Your task to perform on an android device: Open the calendar app, open the side menu, and click the "Day" option Image 0: 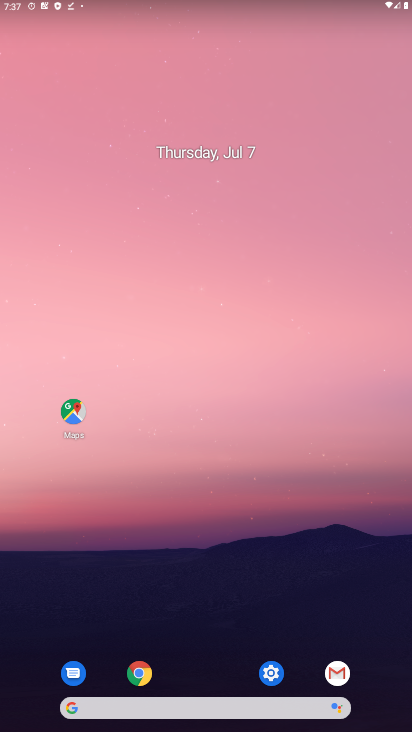
Step 0: drag from (215, 718) to (141, 165)
Your task to perform on an android device: Open the calendar app, open the side menu, and click the "Day" option Image 1: 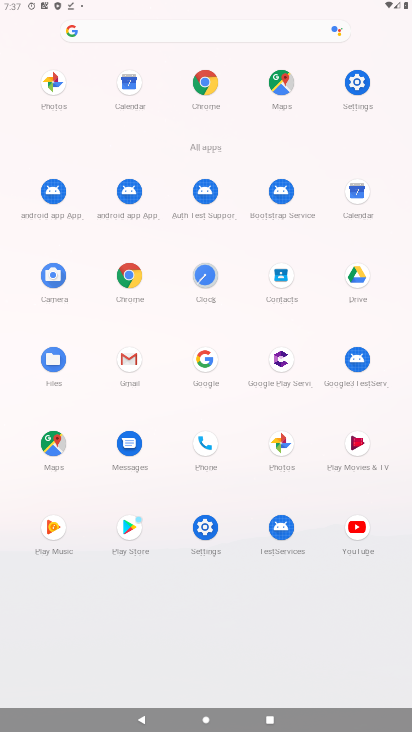
Step 1: click (362, 203)
Your task to perform on an android device: Open the calendar app, open the side menu, and click the "Day" option Image 2: 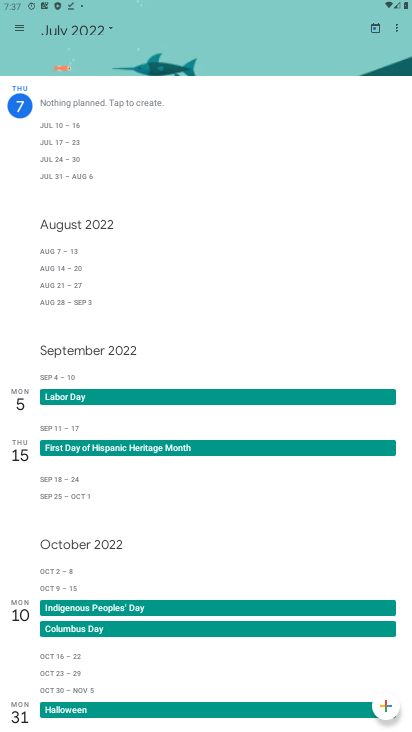
Step 2: click (9, 21)
Your task to perform on an android device: Open the calendar app, open the side menu, and click the "Day" option Image 3: 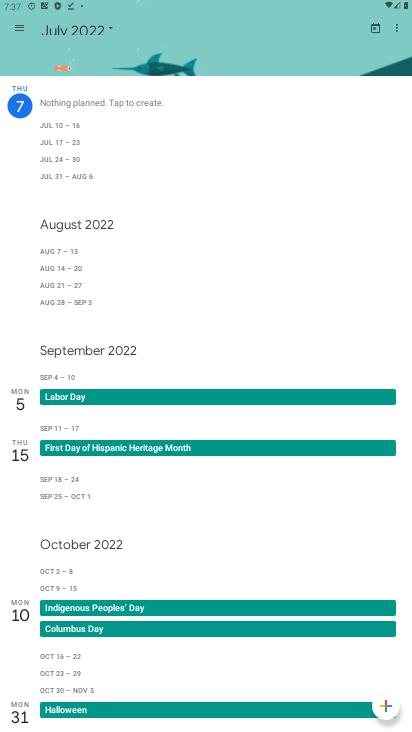
Step 3: click (18, 23)
Your task to perform on an android device: Open the calendar app, open the side menu, and click the "Day" option Image 4: 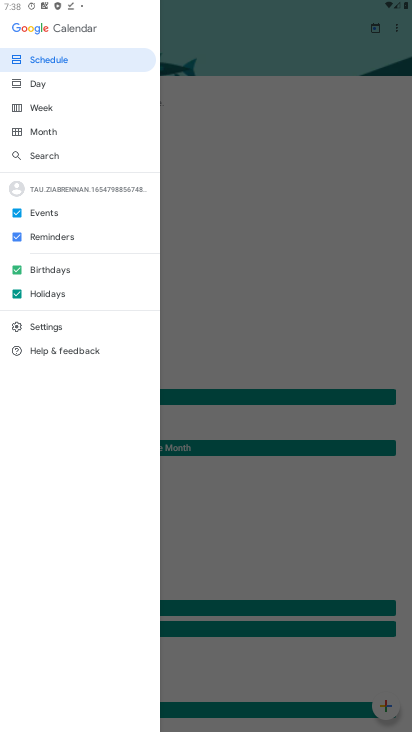
Step 4: click (54, 129)
Your task to perform on an android device: Open the calendar app, open the side menu, and click the "Day" option Image 5: 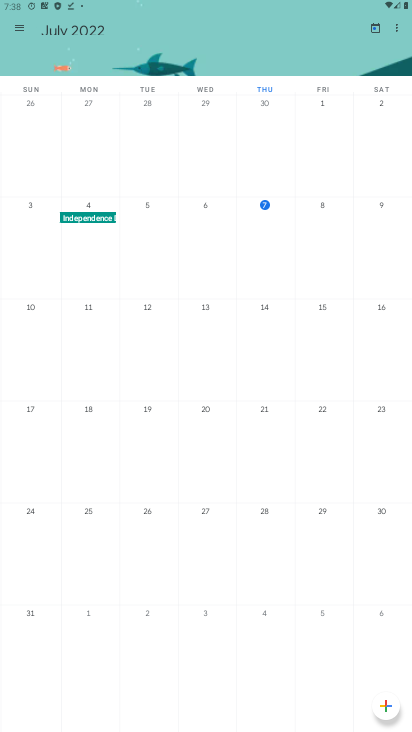
Step 5: click (18, 26)
Your task to perform on an android device: Open the calendar app, open the side menu, and click the "Day" option Image 6: 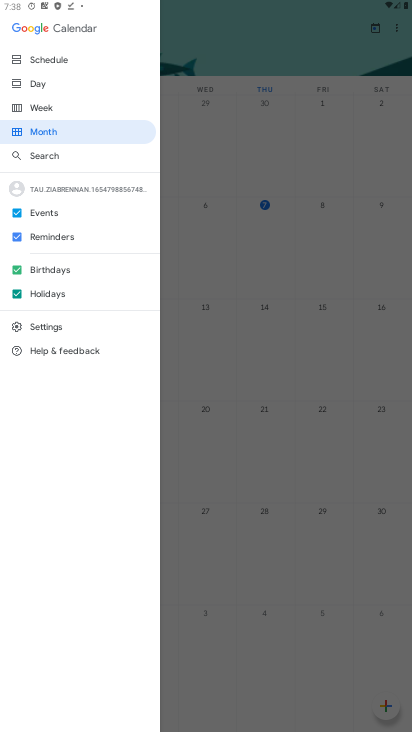
Step 6: click (55, 85)
Your task to perform on an android device: Open the calendar app, open the side menu, and click the "Day" option Image 7: 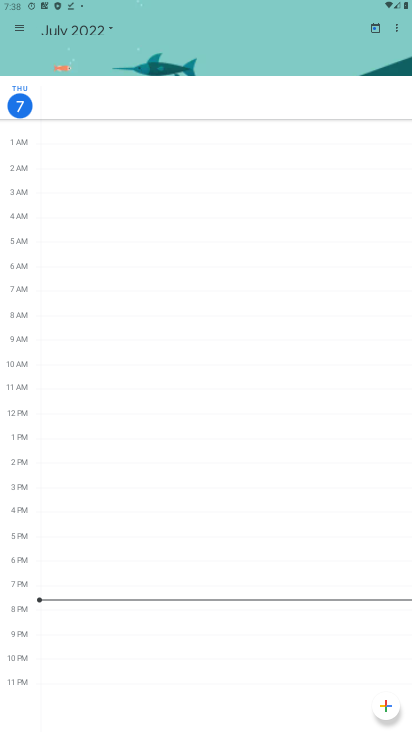
Step 7: task complete